Your task to perform on an android device: turn pop-ups off in chrome Image 0: 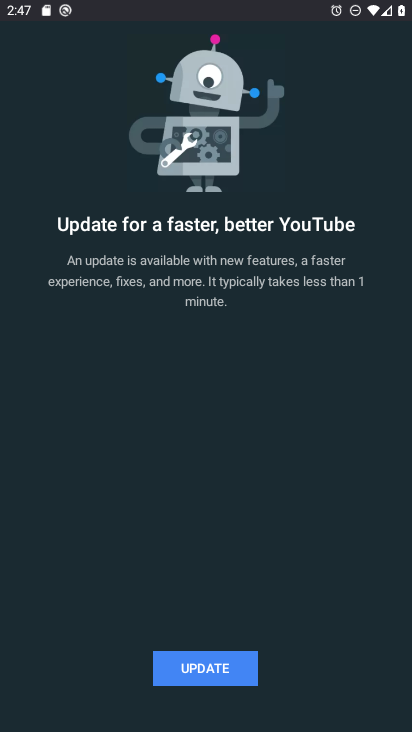
Step 0: press home button
Your task to perform on an android device: turn pop-ups off in chrome Image 1: 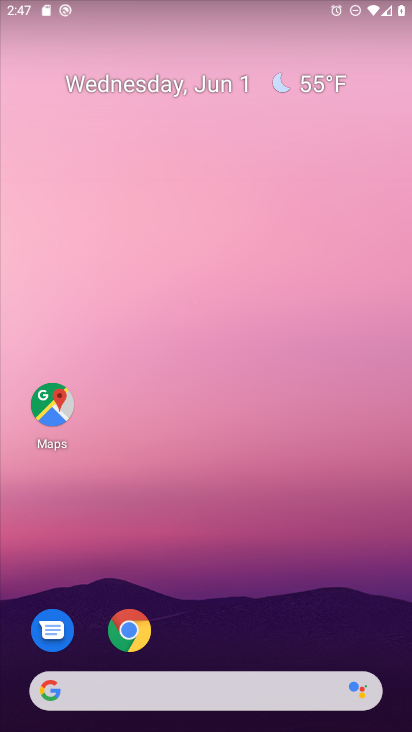
Step 1: drag from (284, 677) to (280, 213)
Your task to perform on an android device: turn pop-ups off in chrome Image 2: 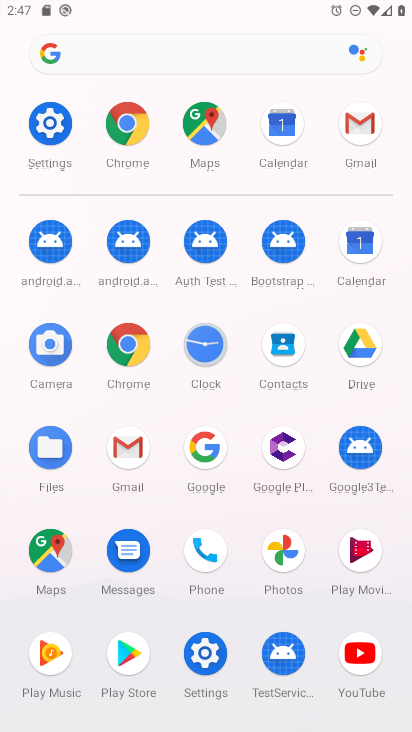
Step 2: click (121, 353)
Your task to perform on an android device: turn pop-ups off in chrome Image 3: 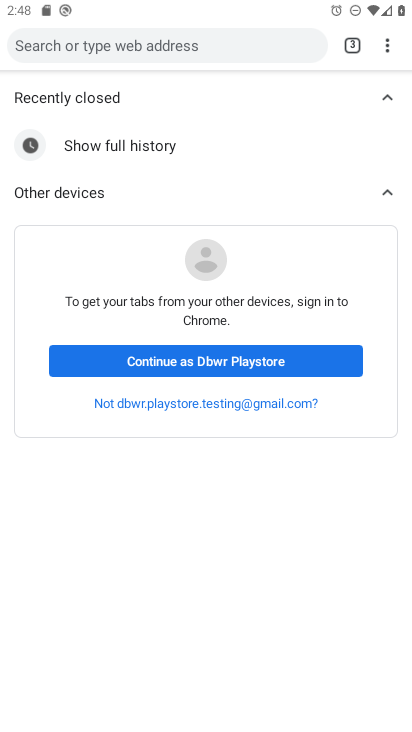
Step 3: drag from (390, 39) to (264, 388)
Your task to perform on an android device: turn pop-ups off in chrome Image 4: 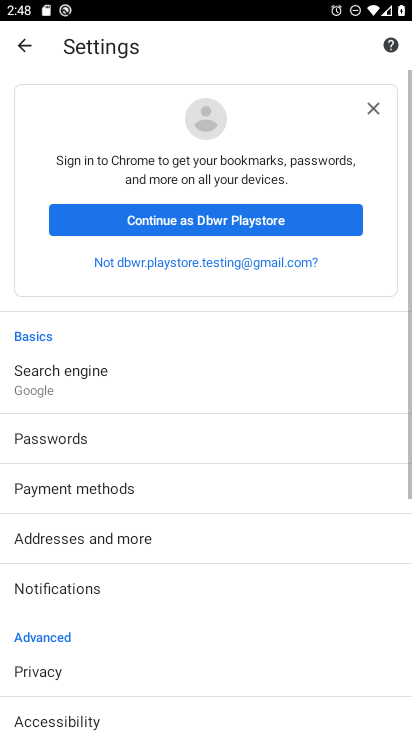
Step 4: drag from (240, 638) to (266, 251)
Your task to perform on an android device: turn pop-ups off in chrome Image 5: 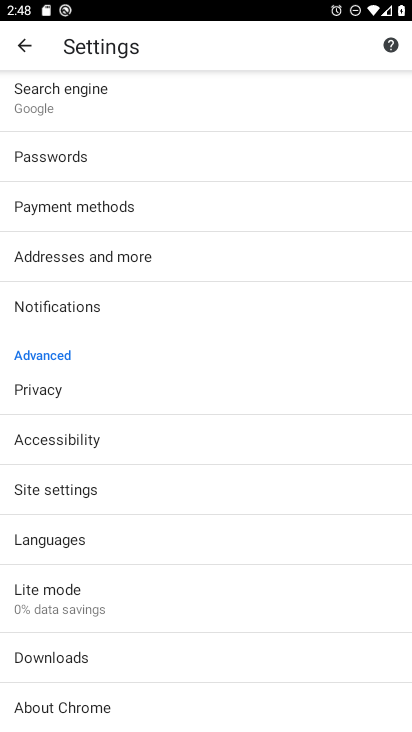
Step 5: click (88, 493)
Your task to perform on an android device: turn pop-ups off in chrome Image 6: 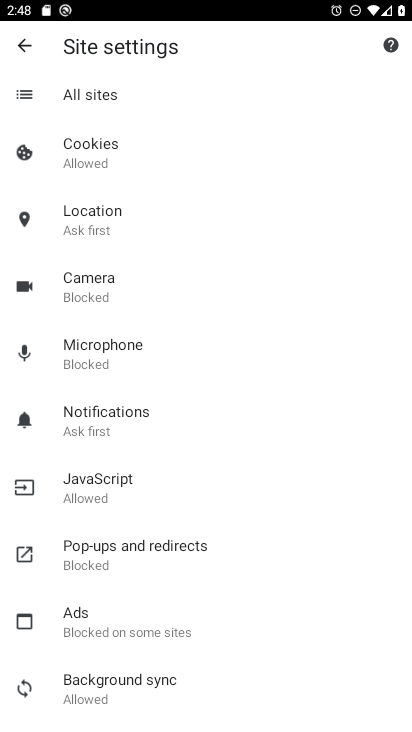
Step 6: click (111, 564)
Your task to perform on an android device: turn pop-ups off in chrome Image 7: 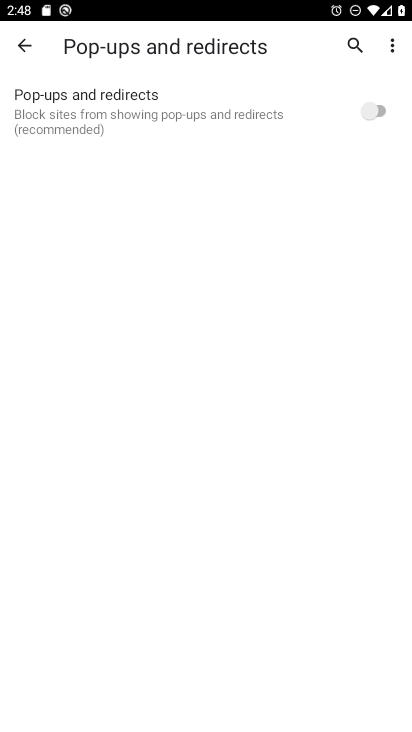
Step 7: task complete